Your task to perform on an android device: move an email to a new category in the gmail app Image 0: 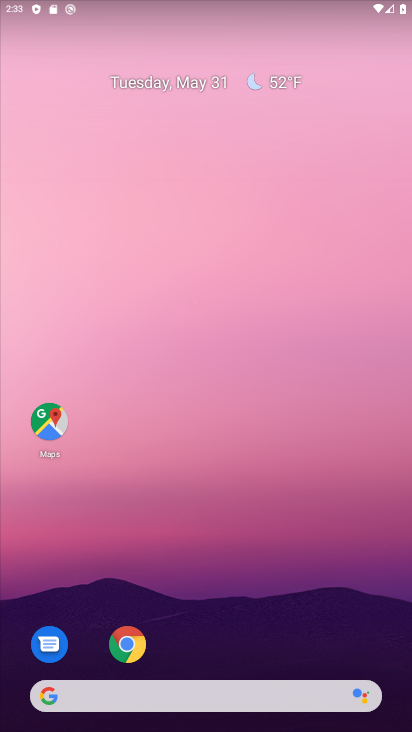
Step 0: press home button
Your task to perform on an android device: move an email to a new category in the gmail app Image 1: 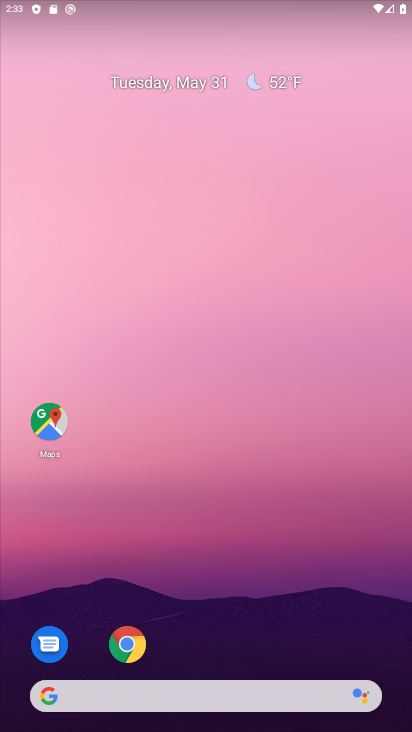
Step 1: drag from (253, 496) to (253, 112)
Your task to perform on an android device: move an email to a new category in the gmail app Image 2: 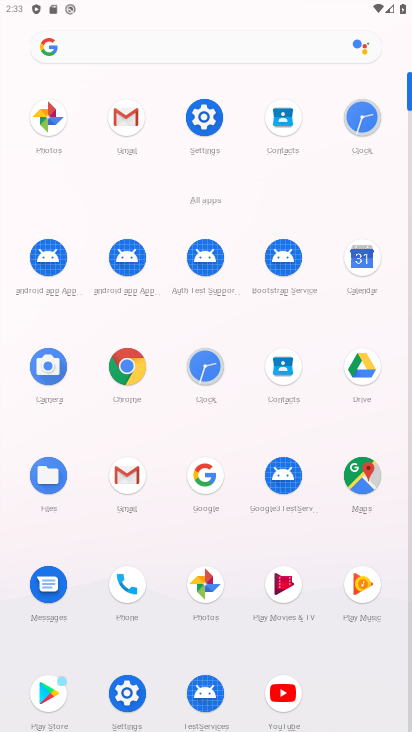
Step 2: click (123, 117)
Your task to perform on an android device: move an email to a new category in the gmail app Image 3: 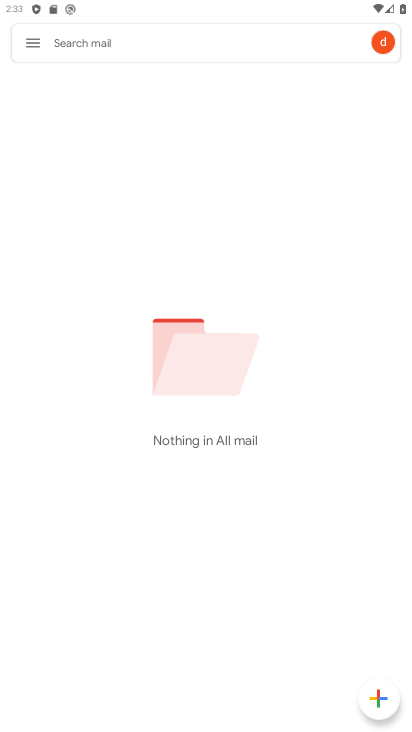
Step 3: task complete